Your task to perform on an android device: What is the recent news? Image 0: 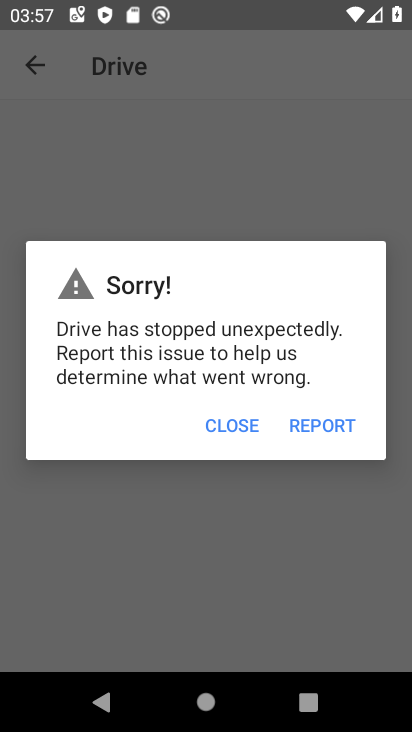
Step 0: press home button
Your task to perform on an android device: What is the recent news? Image 1: 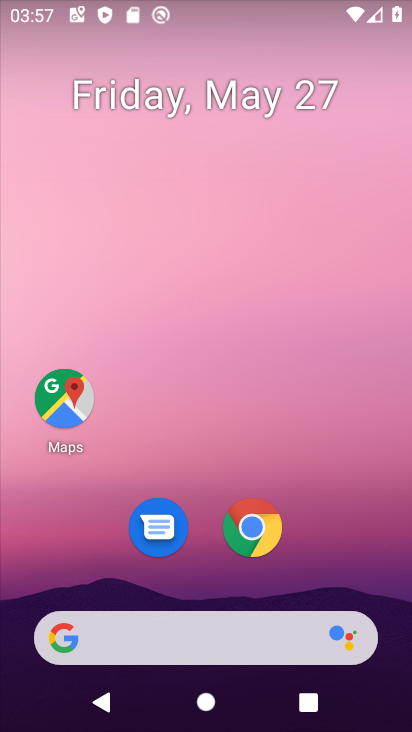
Step 1: drag from (41, 717) to (339, 521)
Your task to perform on an android device: What is the recent news? Image 2: 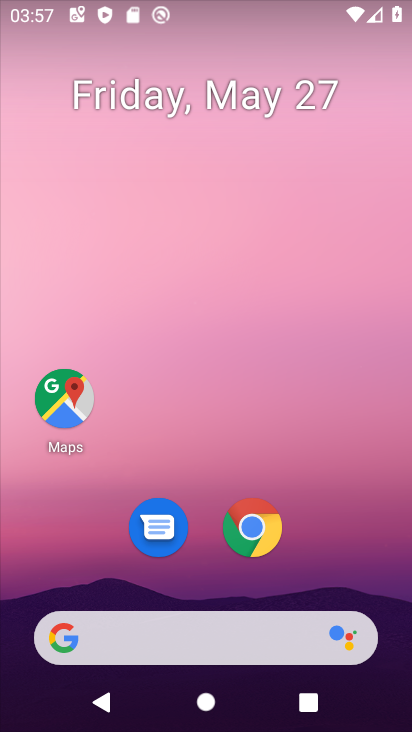
Step 2: click (252, 529)
Your task to perform on an android device: What is the recent news? Image 3: 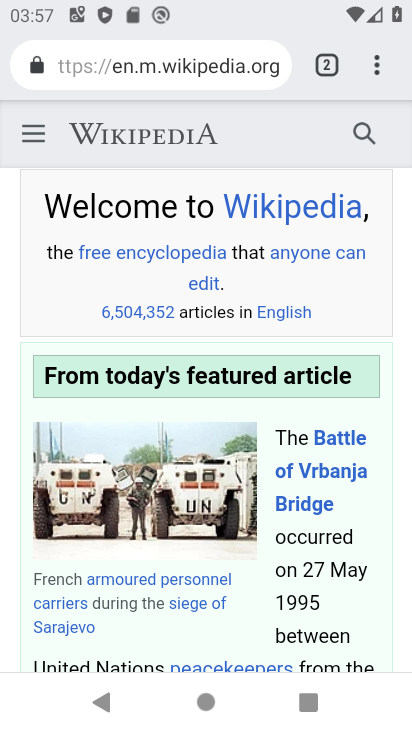
Step 3: click (215, 65)
Your task to perform on an android device: What is the recent news? Image 4: 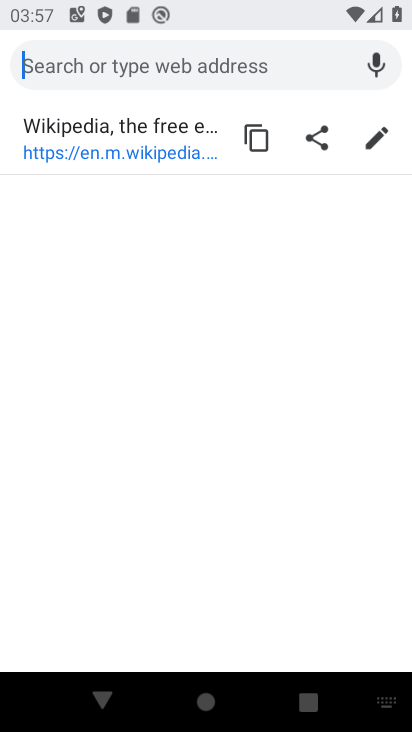
Step 4: type "What is the recent news"
Your task to perform on an android device: What is the recent news? Image 5: 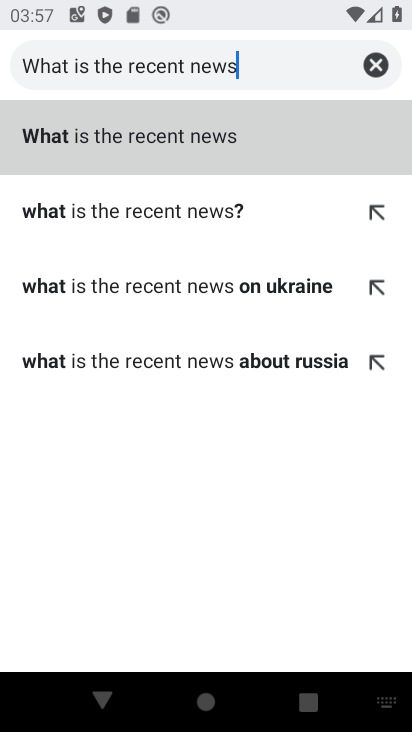
Step 5: click (201, 124)
Your task to perform on an android device: What is the recent news? Image 6: 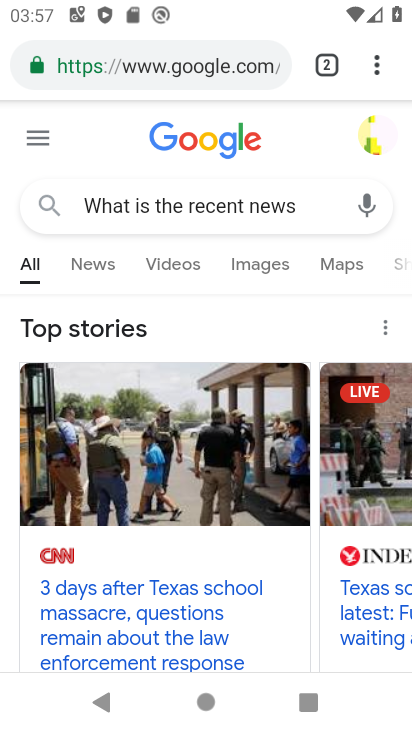
Step 6: task complete